Your task to perform on an android device: clear history in the chrome app Image 0: 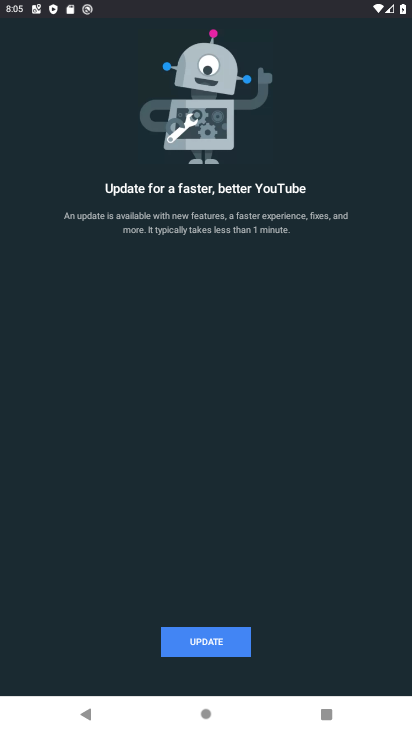
Step 0: press back button
Your task to perform on an android device: clear history in the chrome app Image 1: 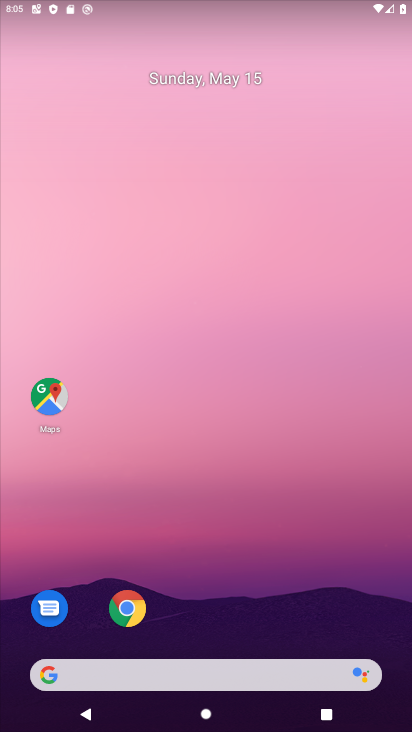
Step 1: drag from (219, 545) to (86, 276)
Your task to perform on an android device: clear history in the chrome app Image 2: 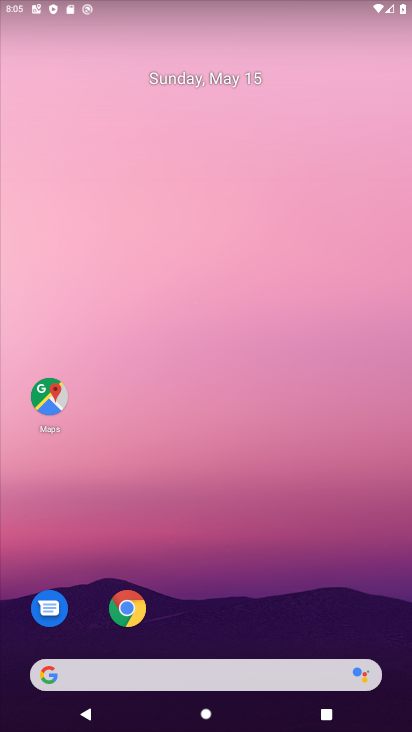
Step 2: drag from (203, 642) to (210, 282)
Your task to perform on an android device: clear history in the chrome app Image 3: 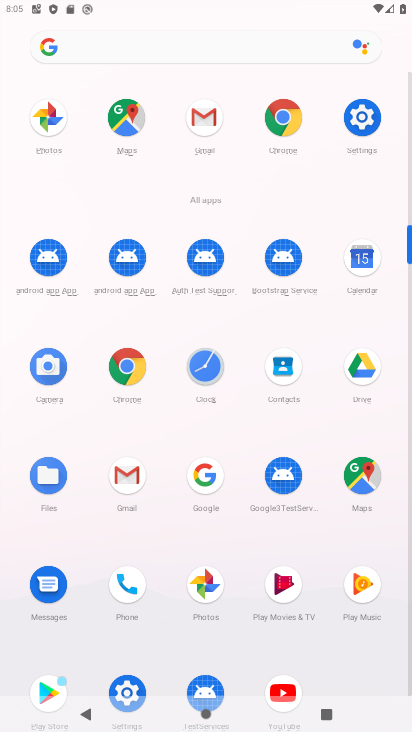
Step 3: drag from (220, 645) to (193, 80)
Your task to perform on an android device: clear history in the chrome app Image 4: 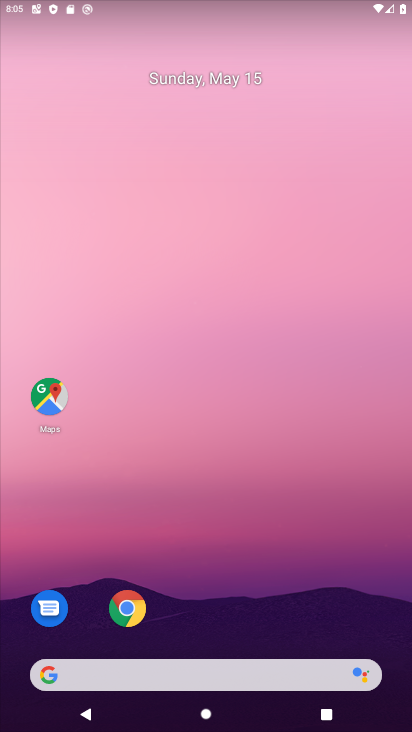
Step 4: press back button
Your task to perform on an android device: clear history in the chrome app Image 5: 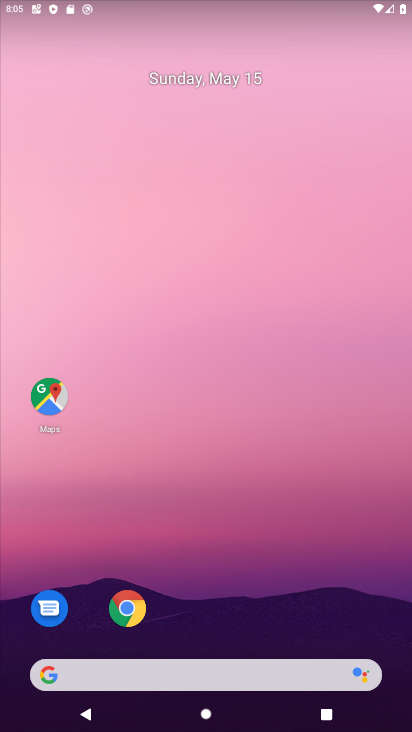
Step 5: drag from (243, 569) to (106, 59)
Your task to perform on an android device: clear history in the chrome app Image 6: 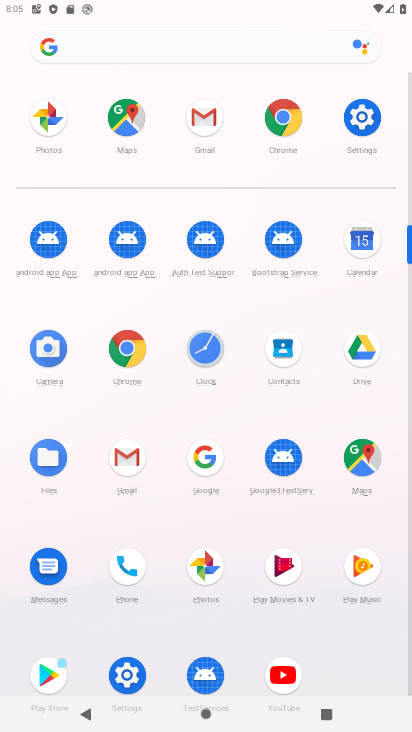
Step 6: click (280, 116)
Your task to perform on an android device: clear history in the chrome app Image 7: 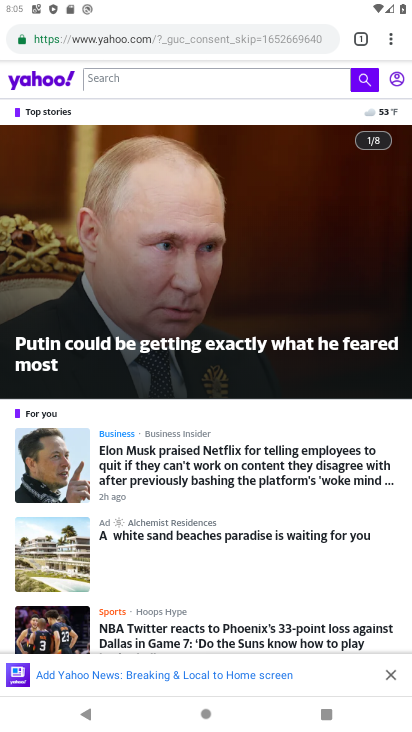
Step 7: click (391, 40)
Your task to perform on an android device: clear history in the chrome app Image 8: 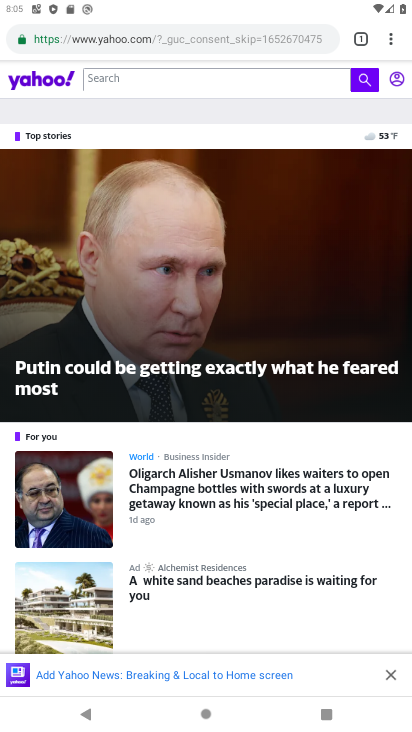
Step 8: click (388, 34)
Your task to perform on an android device: clear history in the chrome app Image 9: 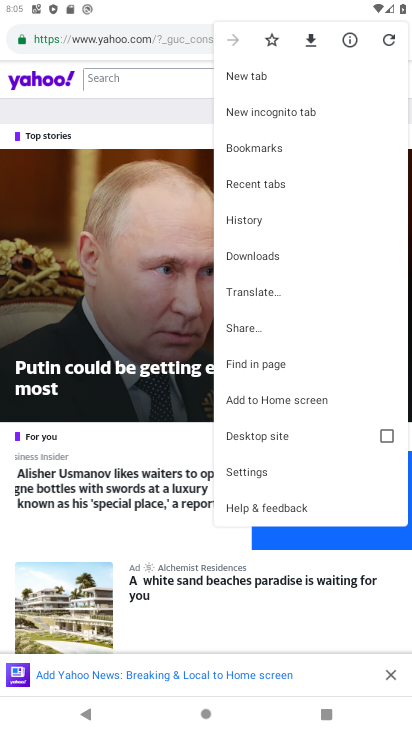
Step 9: click (241, 470)
Your task to perform on an android device: clear history in the chrome app Image 10: 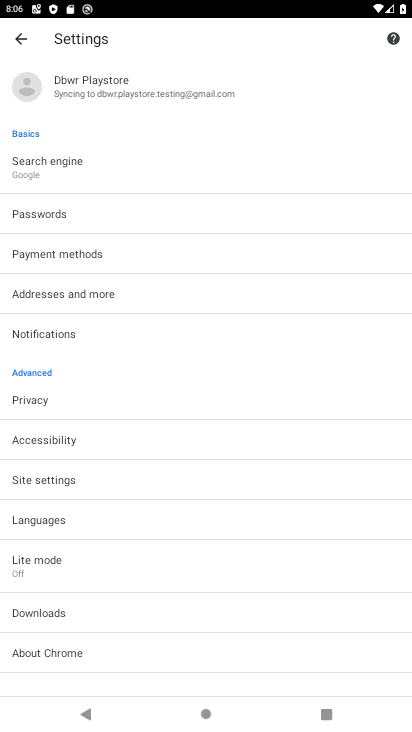
Step 10: click (14, 40)
Your task to perform on an android device: clear history in the chrome app Image 11: 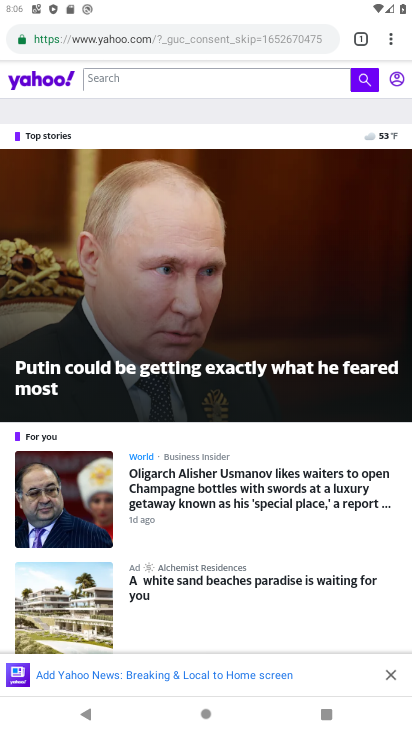
Step 11: click (390, 42)
Your task to perform on an android device: clear history in the chrome app Image 12: 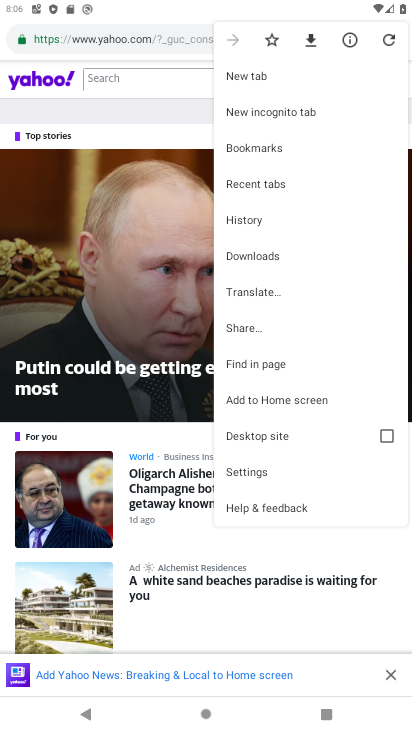
Step 12: click (252, 215)
Your task to perform on an android device: clear history in the chrome app Image 13: 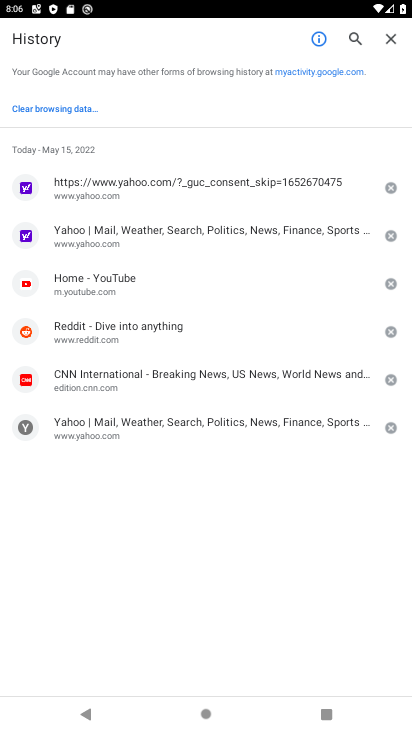
Step 13: click (66, 107)
Your task to perform on an android device: clear history in the chrome app Image 14: 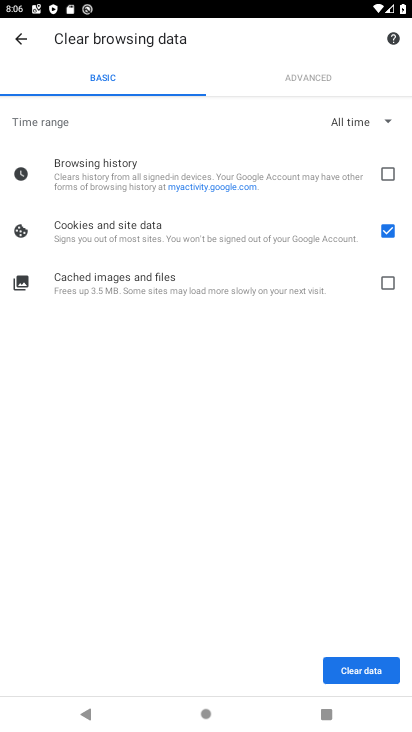
Step 14: click (376, 668)
Your task to perform on an android device: clear history in the chrome app Image 15: 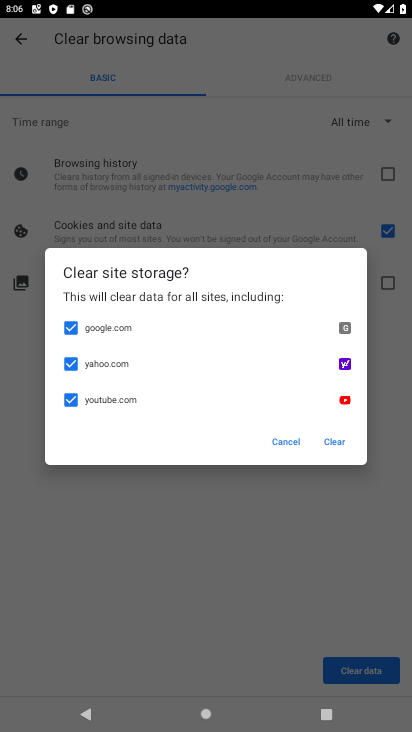
Step 15: click (341, 438)
Your task to perform on an android device: clear history in the chrome app Image 16: 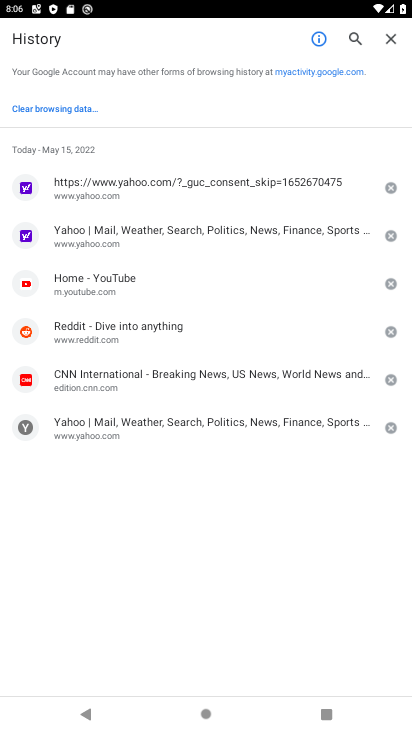
Step 16: task complete